Your task to perform on an android device: Show me popular videos on Youtube Image 0: 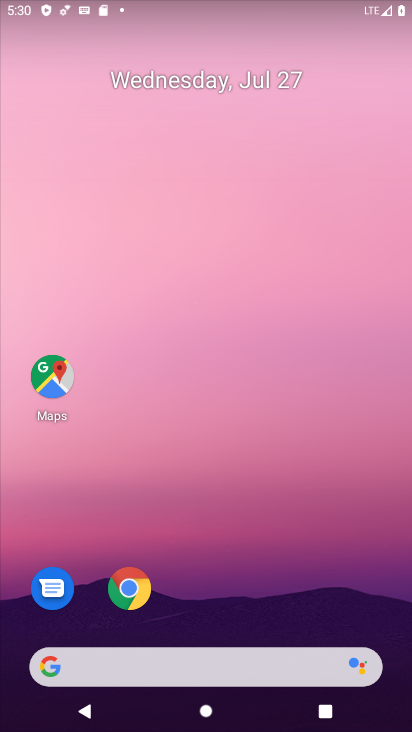
Step 0: drag from (247, 576) to (368, 10)
Your task to perform on an android device: Show me popular videos on Youtube Image 1: 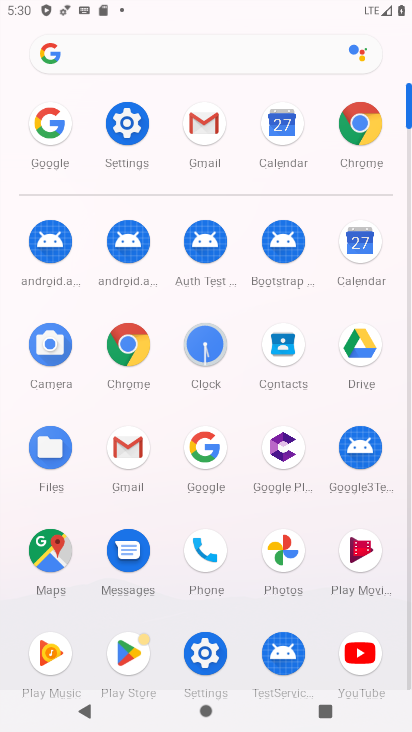
Step 1: click (367, 653)
Your task to perform on an android device: Show me popular videos on Youtube Image 2: 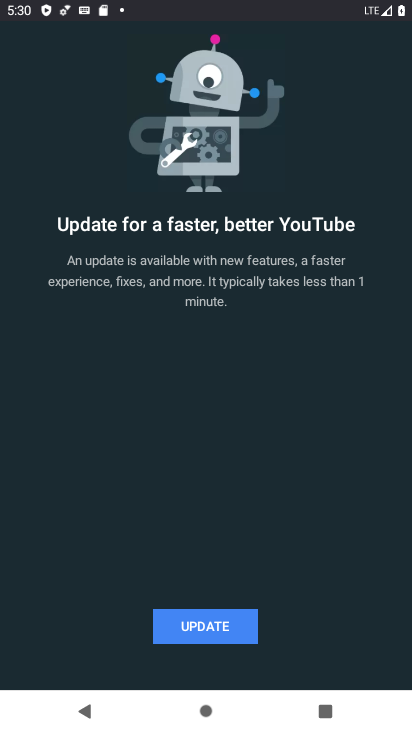
Step 2: click (222, 620)
Your task to perform on an android device: Show me popular videos on Youtube Image 3: 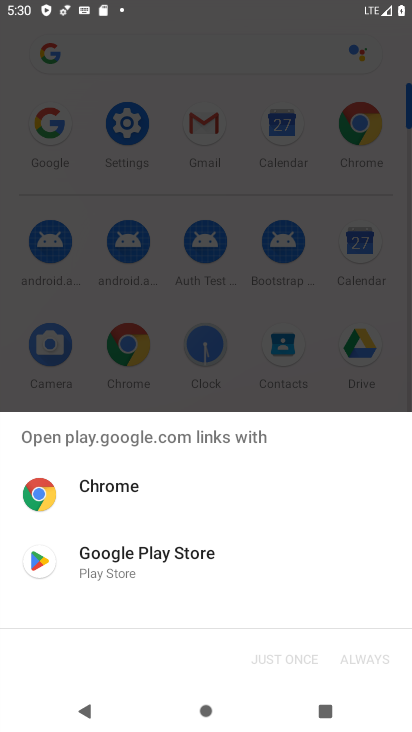
Step 3: click (133, 563)
Your task to perform on an android device: Show me popular videos on Youtube Image 4: 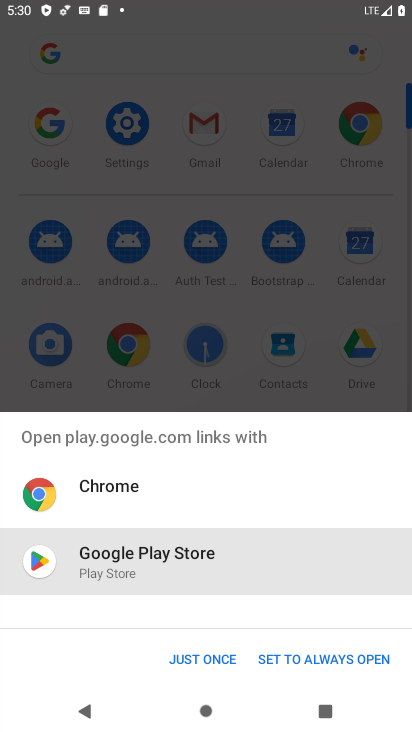
Step 4: click (209, 656)
Your task to perform on an android device: Show me popular videos on Youtube Image 5: 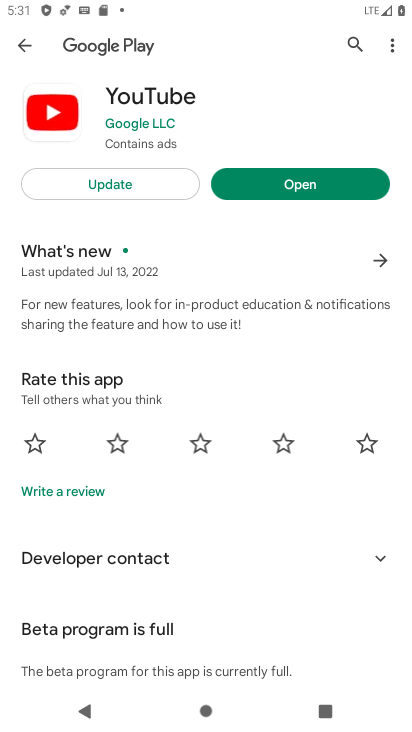
Step 5: click (119, 187)
Your task to perform on an android device: Show me popular videos on Youtube Image 6: 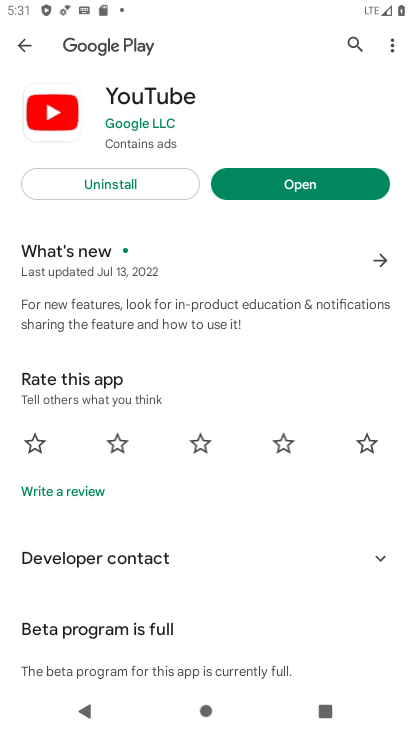
Step 6: click (282, 172)
Your task to perform on an android device: Show me popular videos on Youtube Image 7: 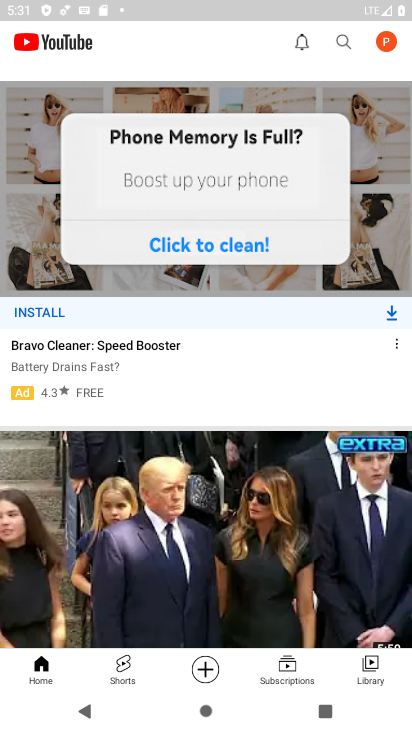
Step 7: task complete